Your task to perform on an android device: set default search engine in the chrome app Image 0: 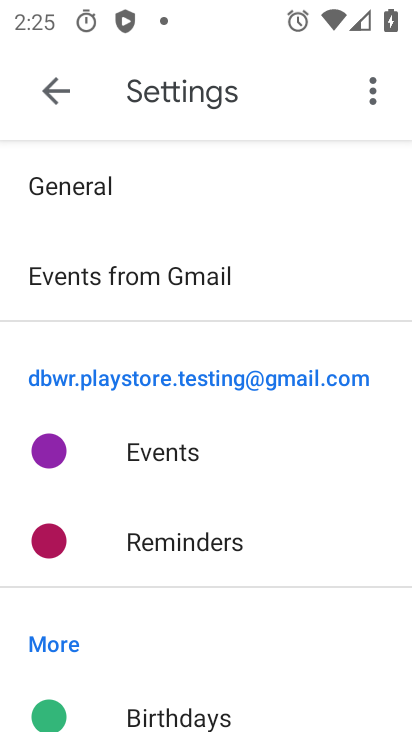
Step 0: press home button
Your task to perform on an android device: set default search engine in the chrome app Image 1: 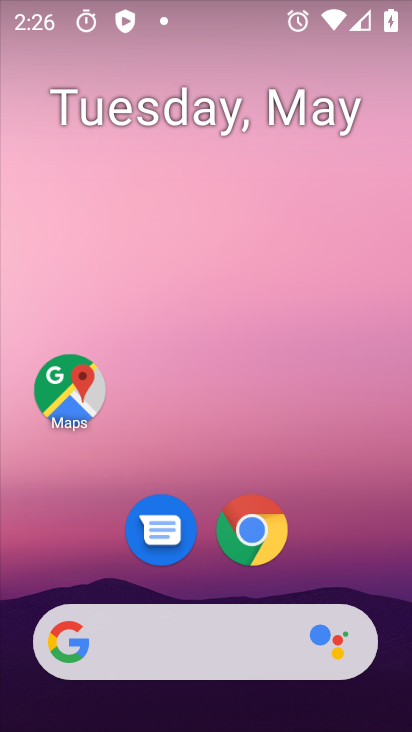
Step 1: click (272, 536)
Your task to perform on an android device: set default search engine in the chrome app Image 2: 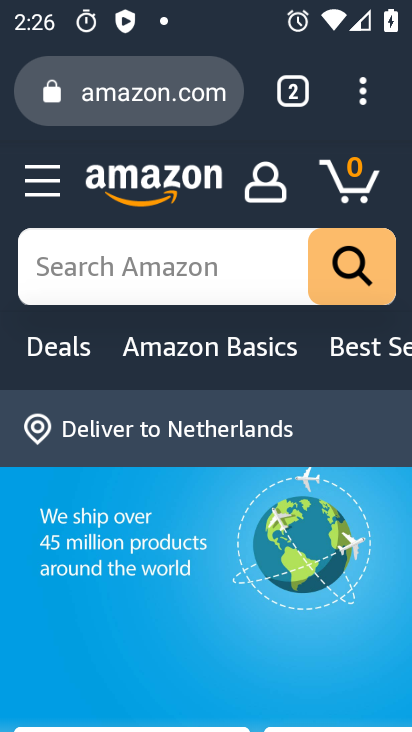
Step 2: click (358, 93)
Your task to perform on an android device: set default search engine in the chrome app Image 3: 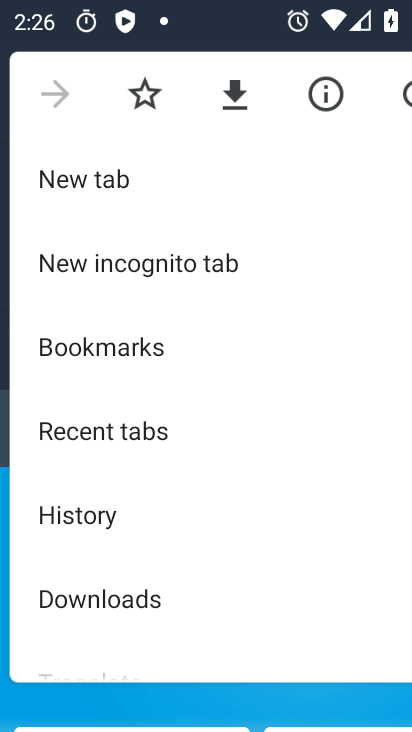
Step 3: drag from (94, 554) to (57, 72)
Your task to perform on an android device: set default search engine in the chrome app Image 4: 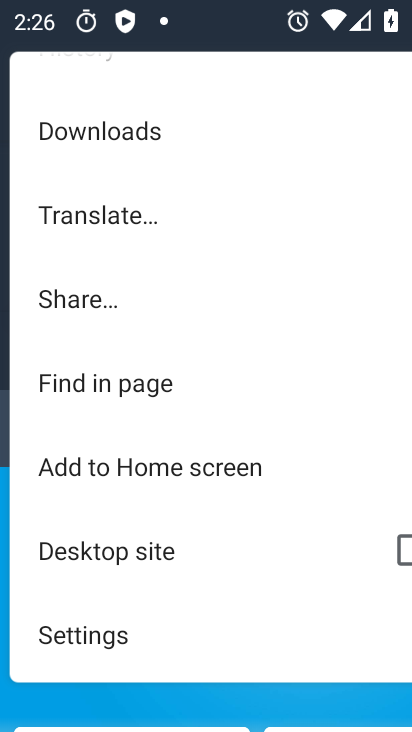
Step 4: click (96, 619)
Your task to perform on an android device: set default search engine in the chrome app Image 5: 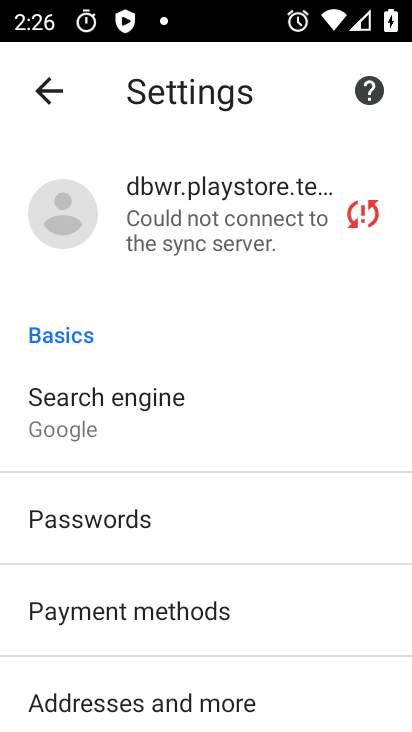
Step 5: click (95, 410)
Your task to perform on an android device: set default search engine in the chrome app Image 6: 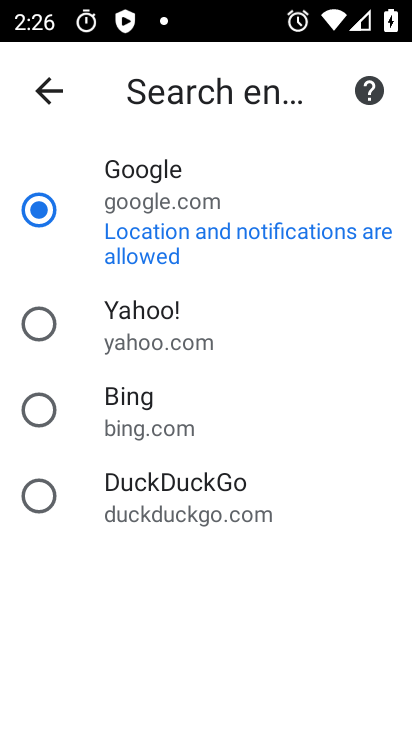
Step 6: task complete